Your task to perform on an android device: turn off notifications settings in the gmail app Image 0: 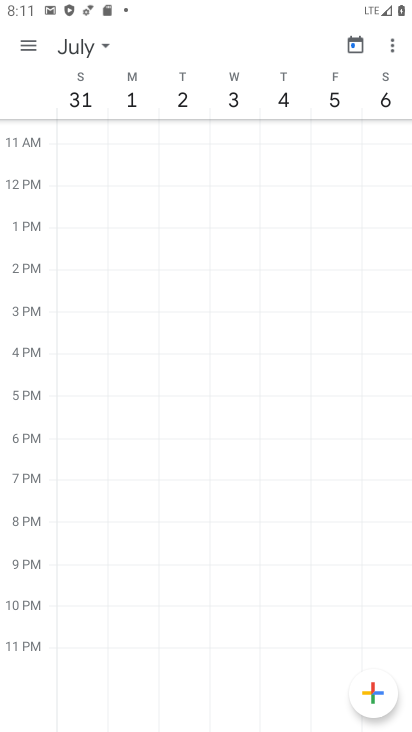
Step 0: press home button
Your task to perform on an android device: turn off notifications settings in the gmail app Image 1: 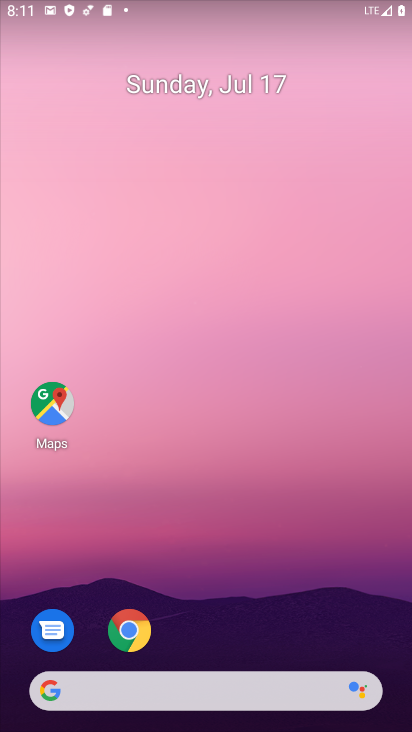
Step 1: drag from (271, 617) to (360, 563)
Your task to perform on an android device: turn off notifications settings in the gmail app Image 2: 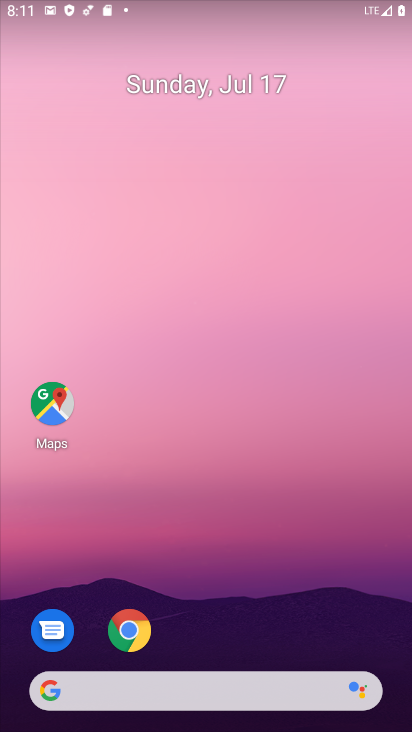
Step 2: drag from (223, 673) to (202, 6)
Your task to perform on an android device: turn off notifications settings in the gmail app Image 3: 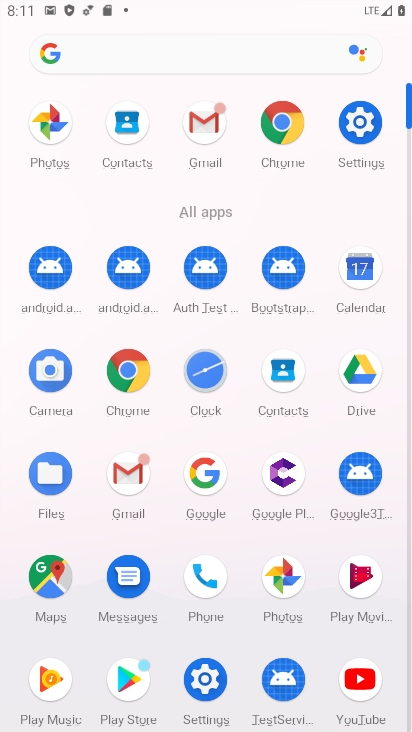
Step 3: click (132, 490)
Your task to perform on an android device: turn off notifications settings in the gmail app Image 4: 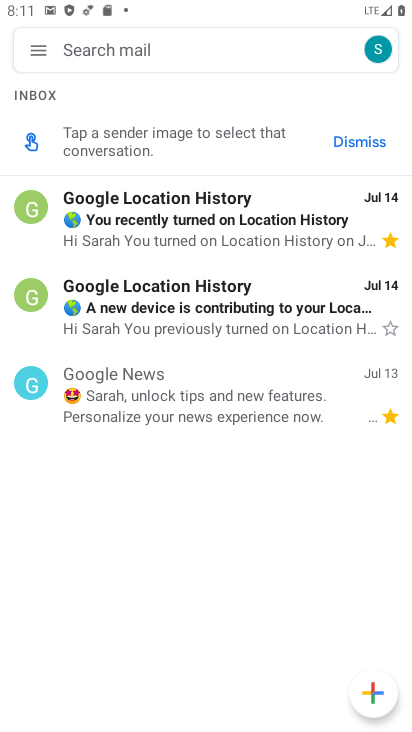
Step 4: click (36, 57)
Your task to perform on an android device: turn off notifications settings in the gmail app Image 5: 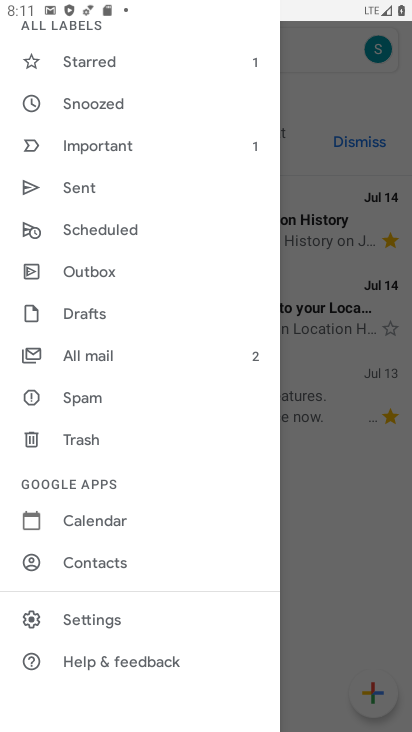
Step 5: click (95, 626)
Your task to perform on an android device: turn off notifications settings in the gmail app Image 6: 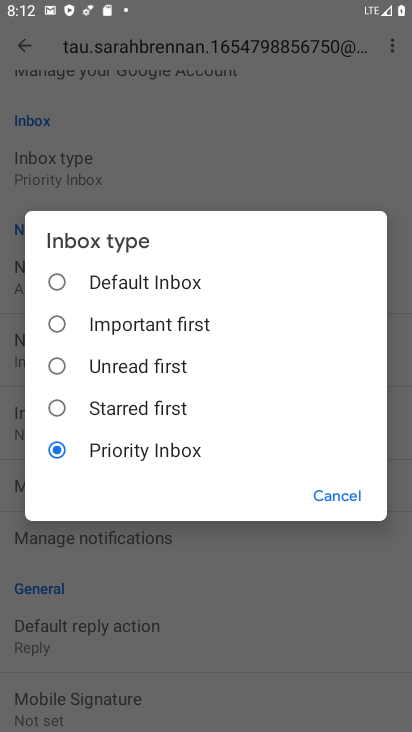
Step 6: click (346, 505)
Your task to perform on an android device: turn off notifications settings in the gmail app Image 7: 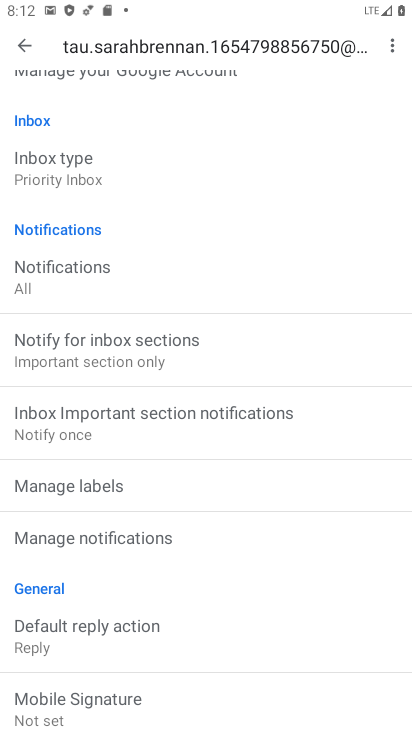
Step 7: drag from (163, 168) to (170, 707)
Your task to perform on an android device: turn off notifications settings in the gmail app Image 8: 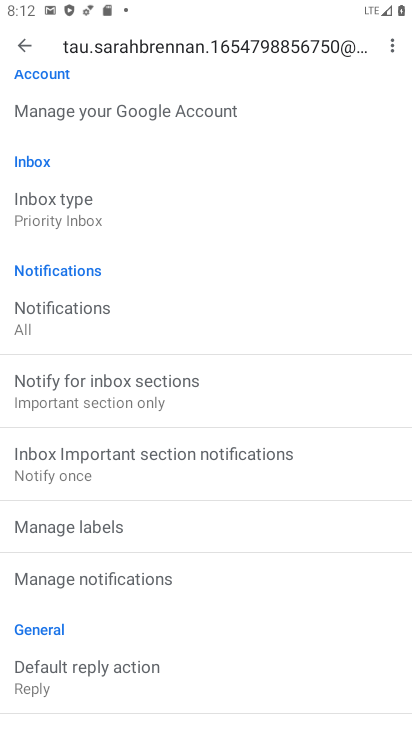
Step 8: click (23, 42)
Your task to perform on an android device: turn off notifications settings in the gmail app Image 9: 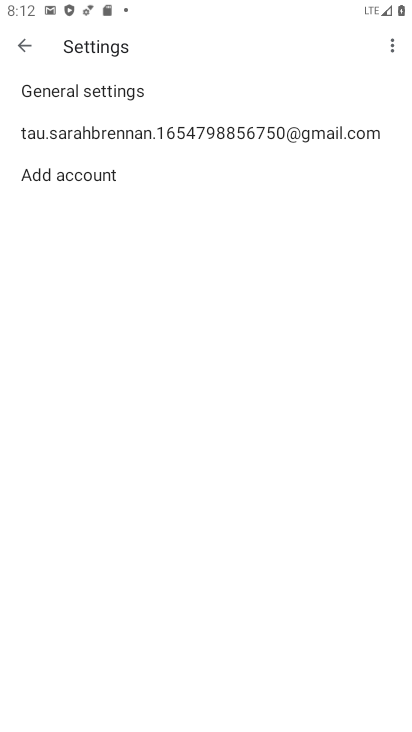
Step 9: click (118, 88)
Your task to perform on an android device: turn off notifications settings in the gmail app Image 10: 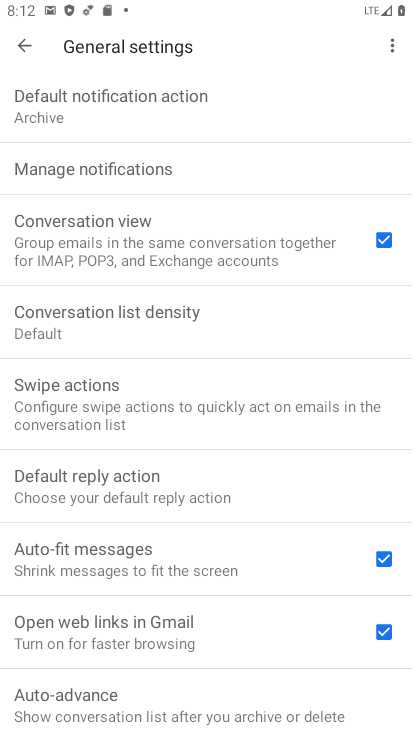
Step 10: click (92, 168)
Your task to perform on an android device: turn off notifications settings in the gmail app Image 11: 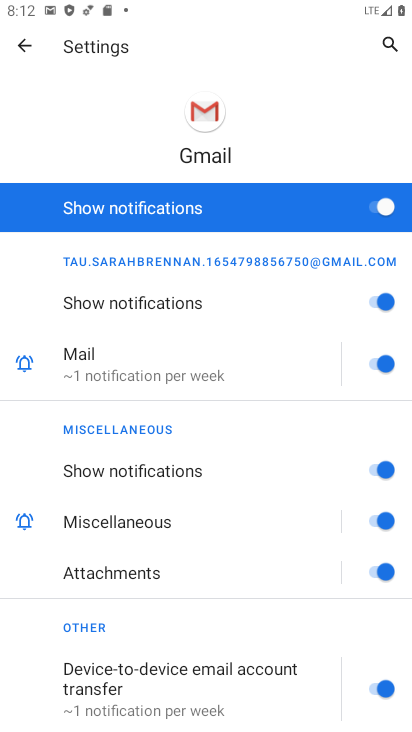
Step 11: click (342, 203)
Your task to perform on an android device: turn off notifications settings in the gmail app Image 12: 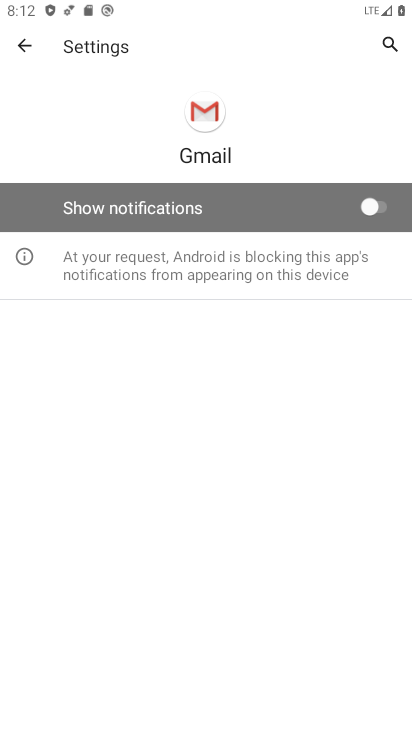
Step 12: task complete